Your task to perform on an android device: Open location settings Image 0: 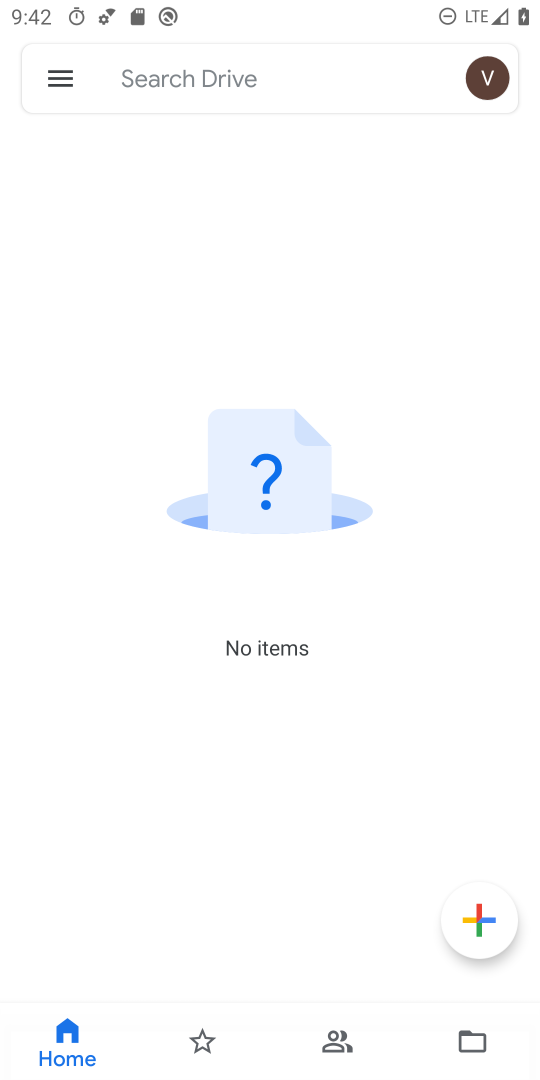
Step 0: press home button
Your task to perform on an android device: Open location settings Image 1: 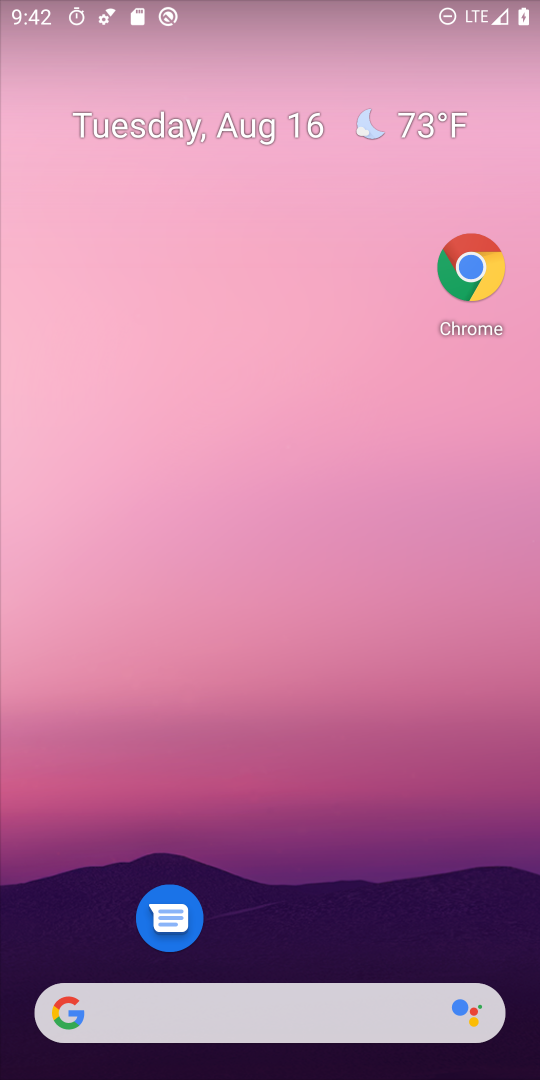
Step 1: drag from (220, 999) to (169, 176)
Your task to perform on an android device: Open location settings Image 2: 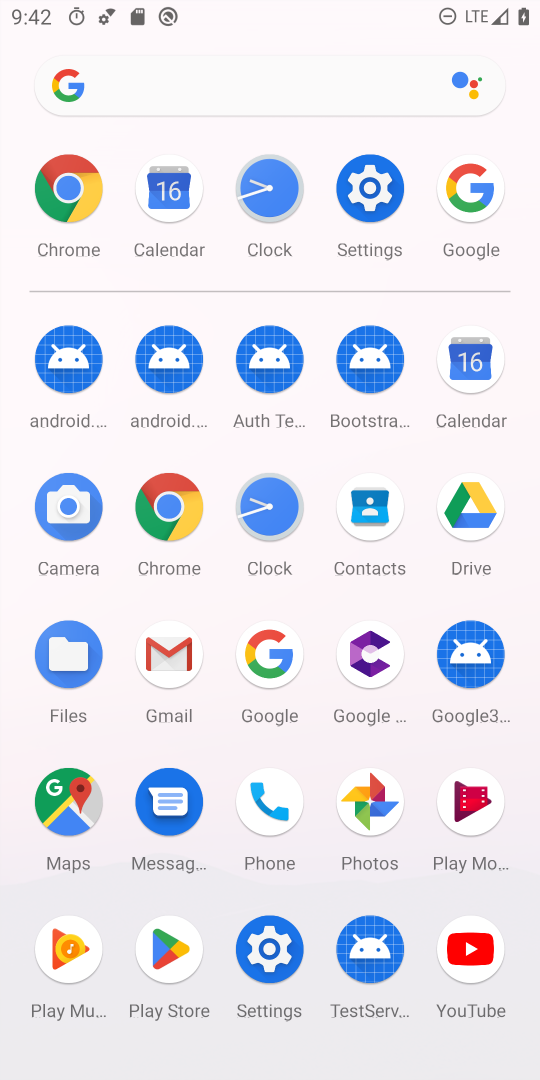
Step 2: click (375, 207)
Your task to perform on an android device: Open location settings Image 3: 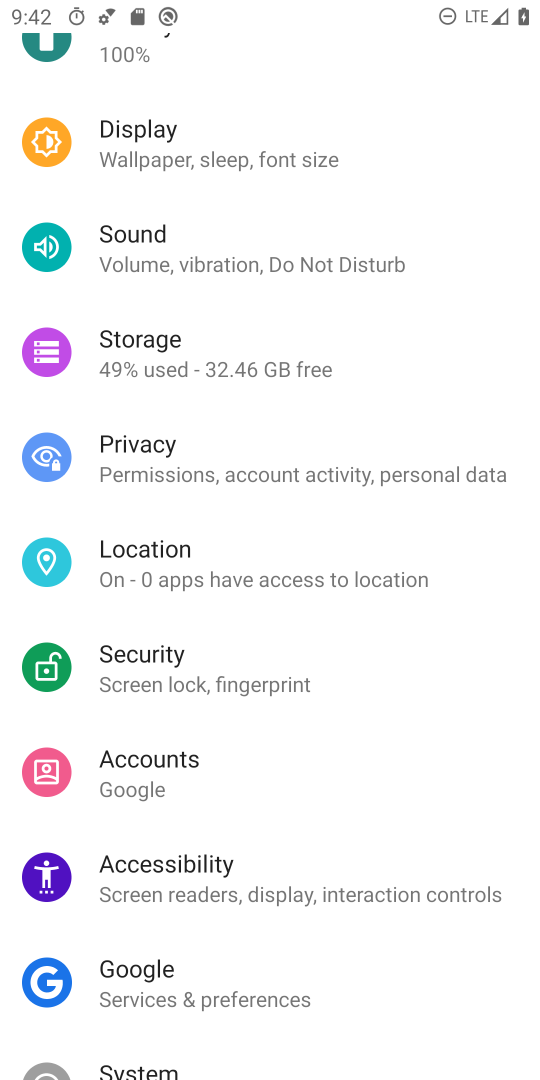
Step 3: click (225, 592)
Your task to perform on an android device: Open location settings Image 4: 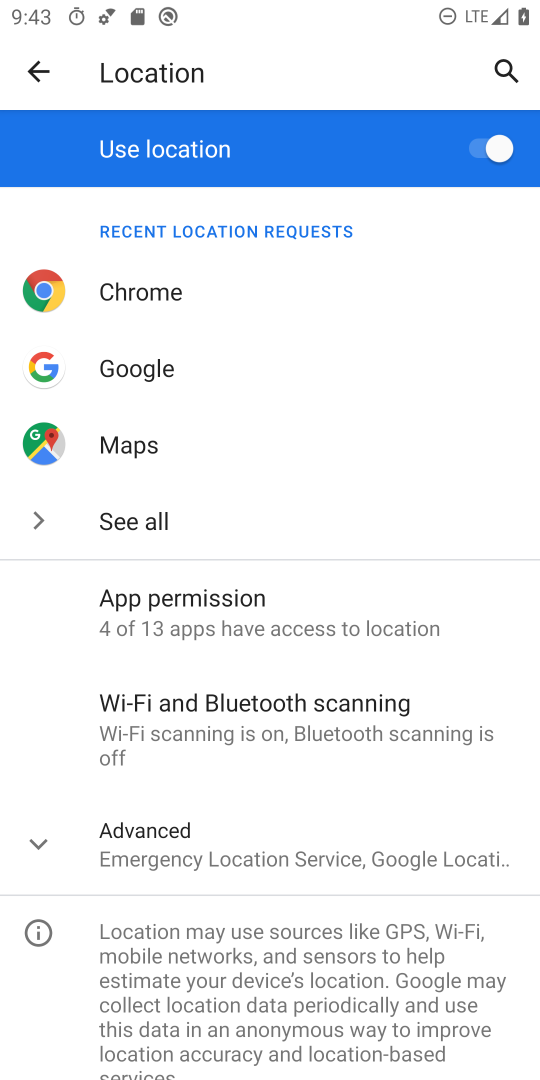
Step 4: click (143, 834)
Your task to perform on an android device: Open location settings Image 5: 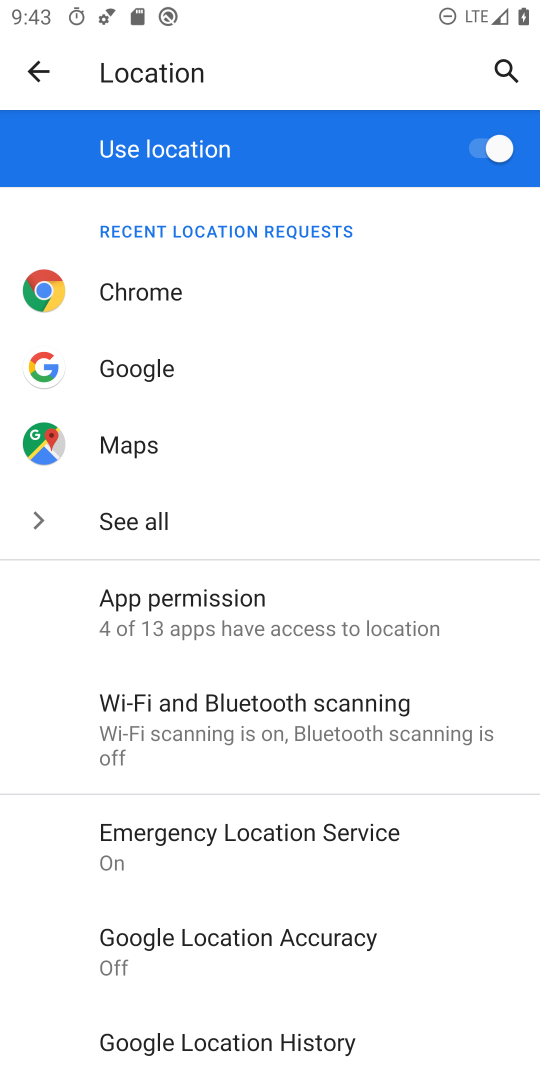
Step 5: task complete